Your task to perform on an android device: Open settings on Google Maps Image 0: 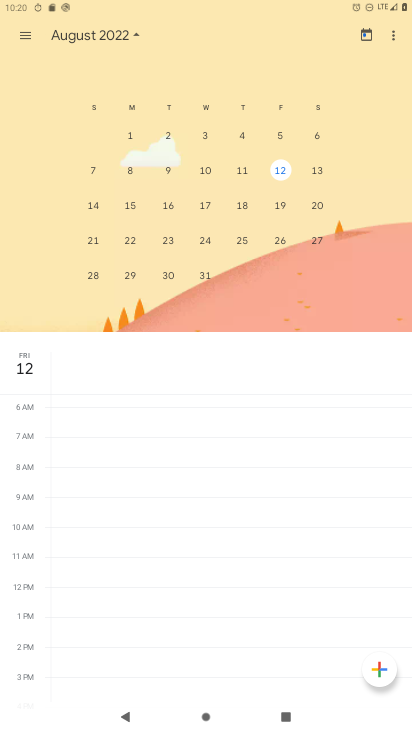
Step 0: press home button
Your task to perform on an android device: Open settings on Google Maps Image 1: 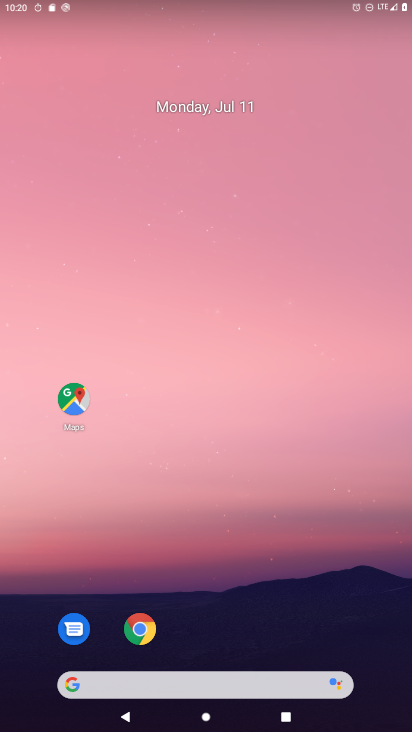
Step 1: click (79, 409)
Your task to perform on an android device: Open settings on Google Maps Image 2: 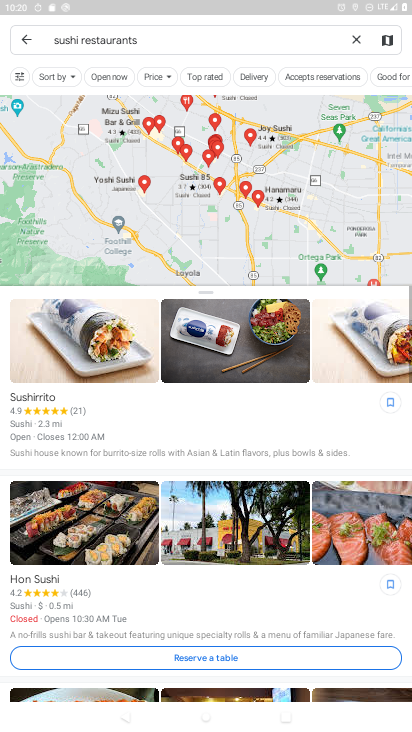
Step 2: click (26, 42)
Your task to perform on an android device: Open settings on Google Maps Image 3: 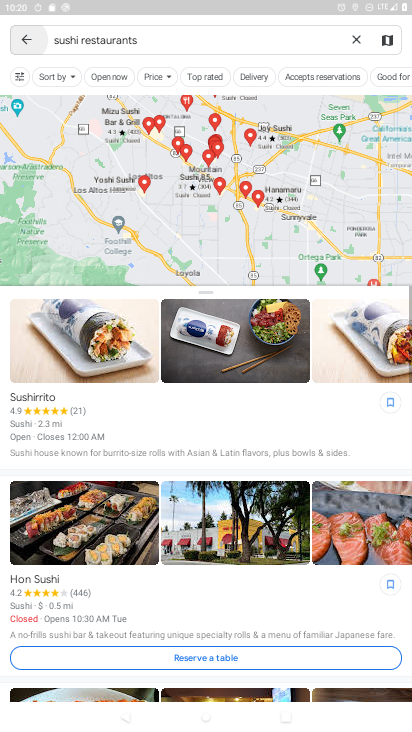
Step 3: click (26, 42)
Your task to perform on an android device: Open settings on Google Maps Image 4: 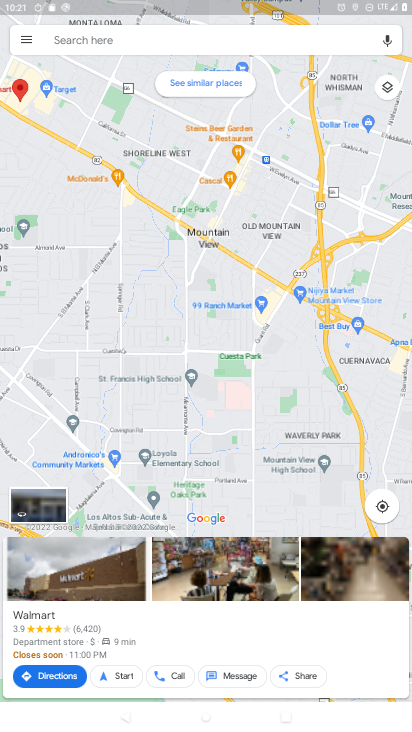
Step 4: click (20, 44)
Your task to perform on an android device: Open settings on Google Maps Image 5: 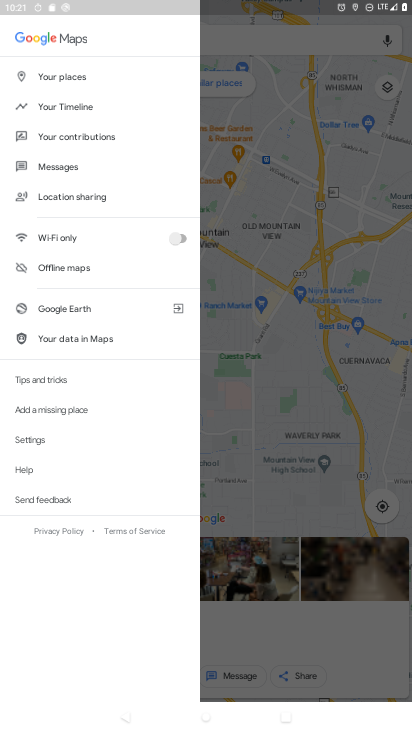
Step 5: click (61, 440)
Your task to perform on an android device: Open settings on Google Maps Image 6: 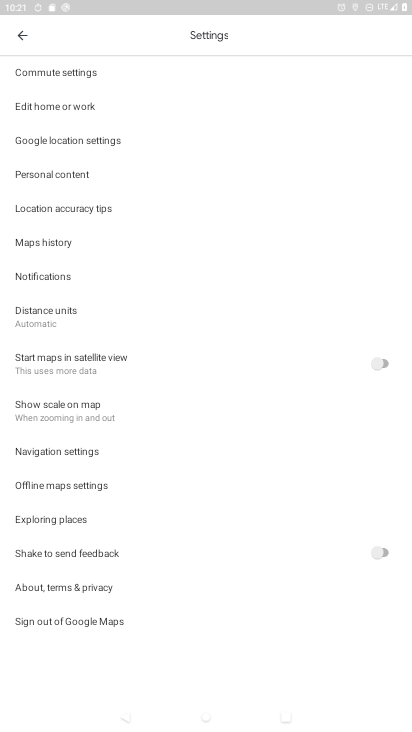
Step 6: task complete